Your task to perform on an android device: Open sound settings Image 0: 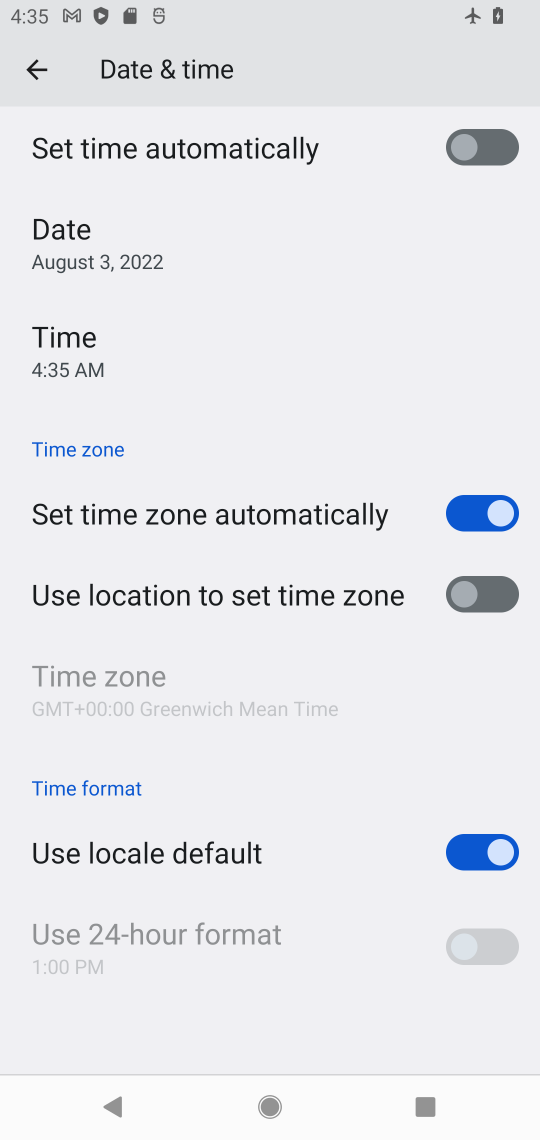
Step 0: press home button
Your task to perform on an android device: Open sound settings Image 1: 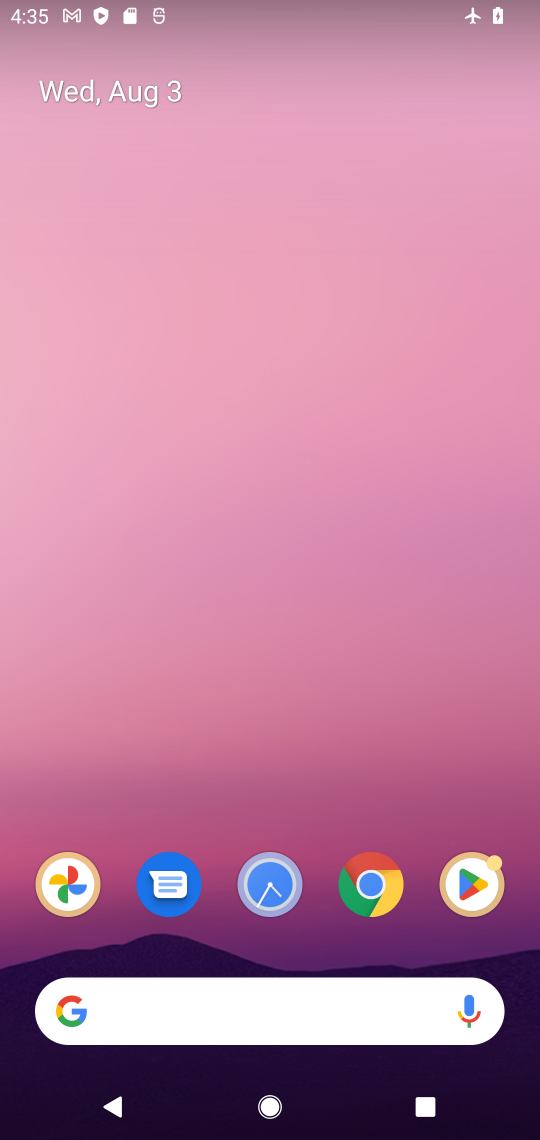
Step 1: drag from (302, 969) to (367, 127)
Your task to perform on an android device: Open sound settings Image 2: 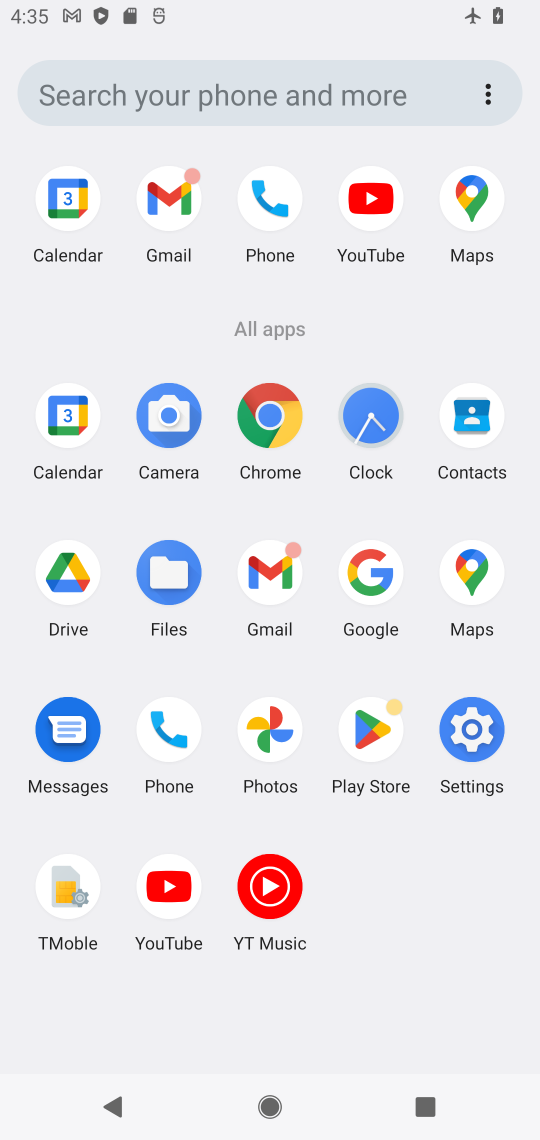
Step 2: click (474, 747)
Your task to perform on an android device: Open sound settings Image 3: 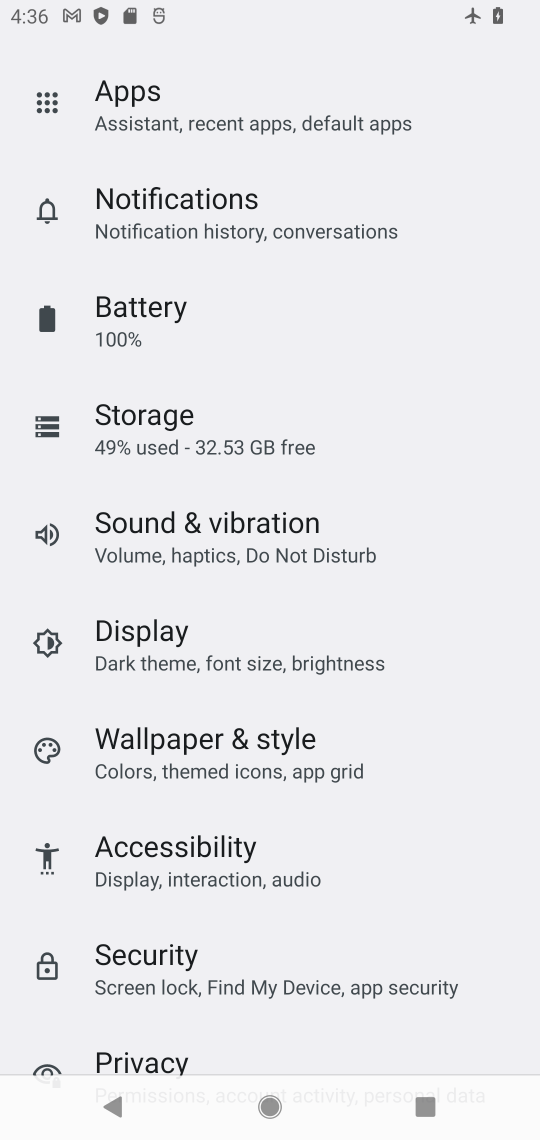
Step 3: drag from (201, 951) to (355, 203)
Your task to perform on an android device: Open sound settings Image 4: 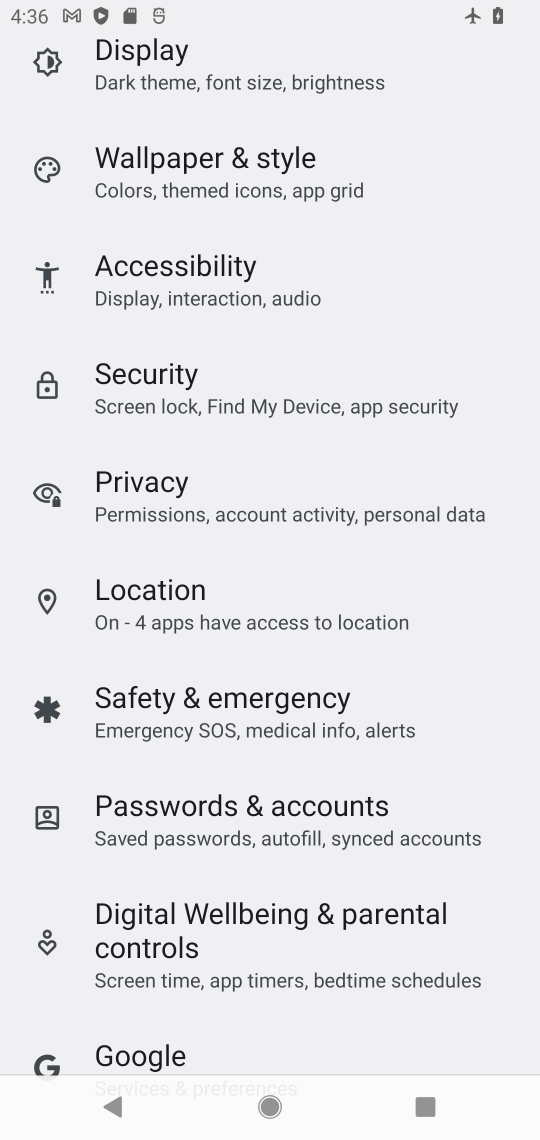
Step 4: drag from (239, 983) to (333, 106)
Your task to perform on an android device: Open sound settings Image 5: 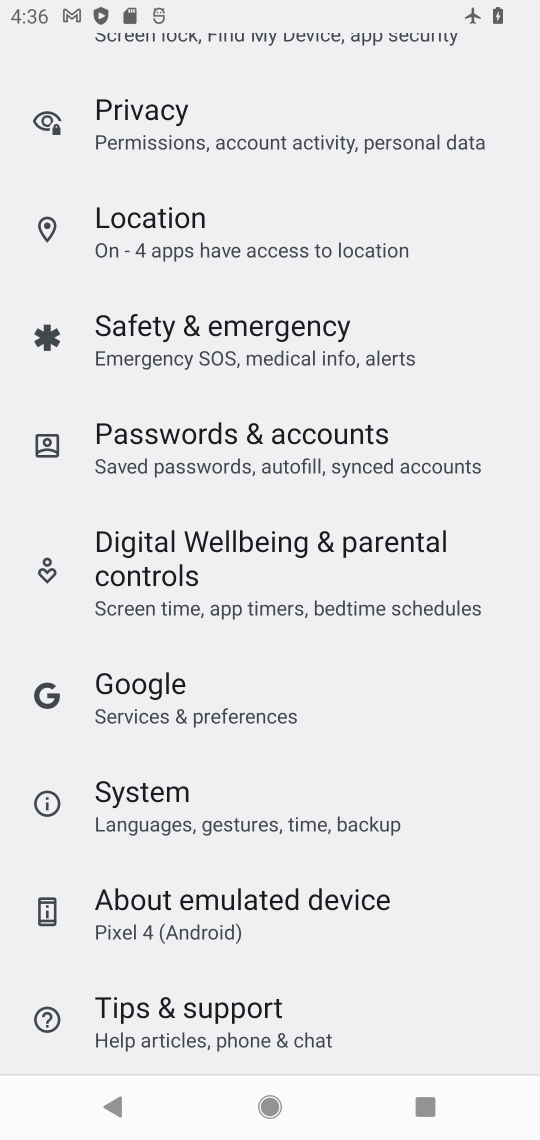
Step 5: drag from (251, 999) to (264, 341)
Your task to perform on an android device: Open sound settings Image 6: 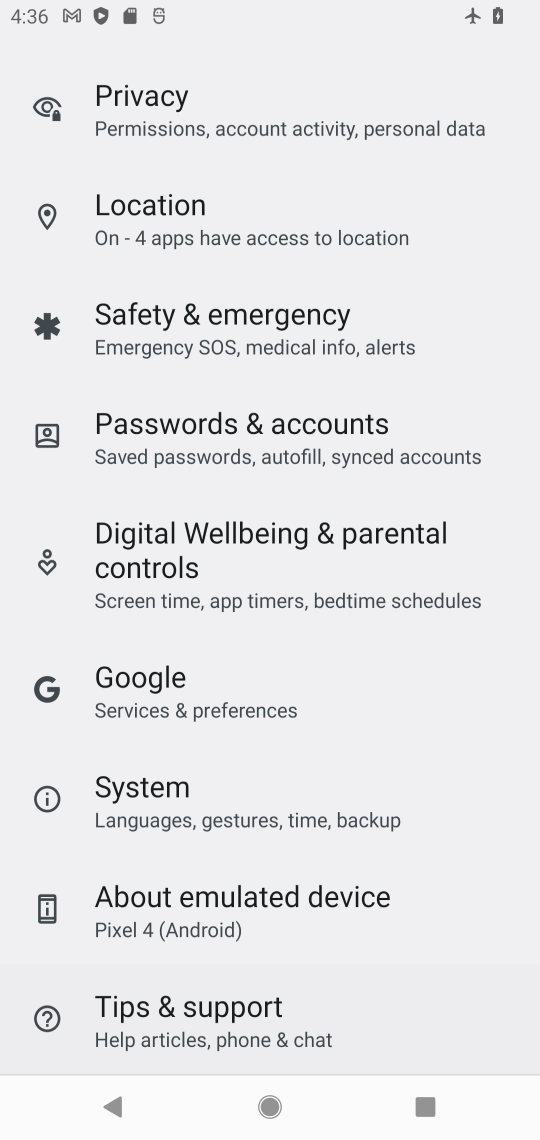
Step 6: drag from (281, 503) to (293, 1000)
Your task to perform on an android device: Open sound settings Image 7: 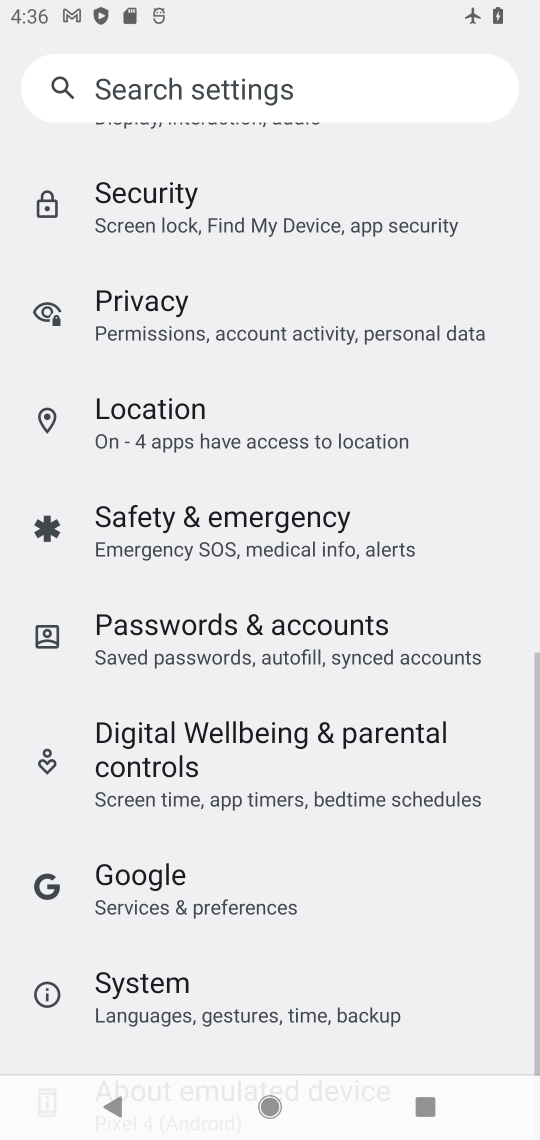
Step 7: drag from (230, 330) to (239, 1048)
Your task to perform on an android device: Open sound settings Image 8: 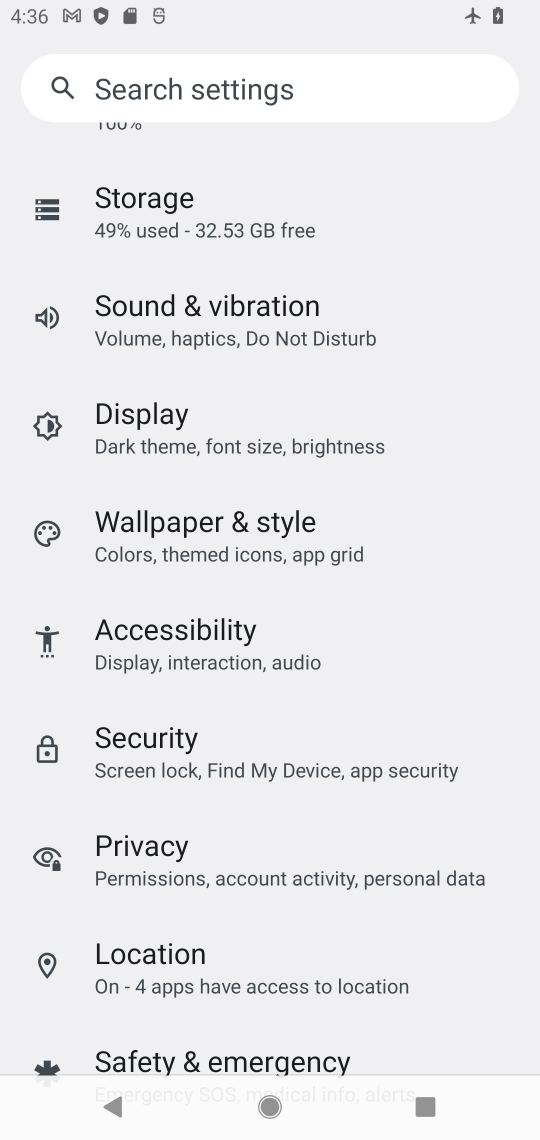
Step 8: click (216, 341)
Your task to perform on an android device: Open sound settings Image 9: 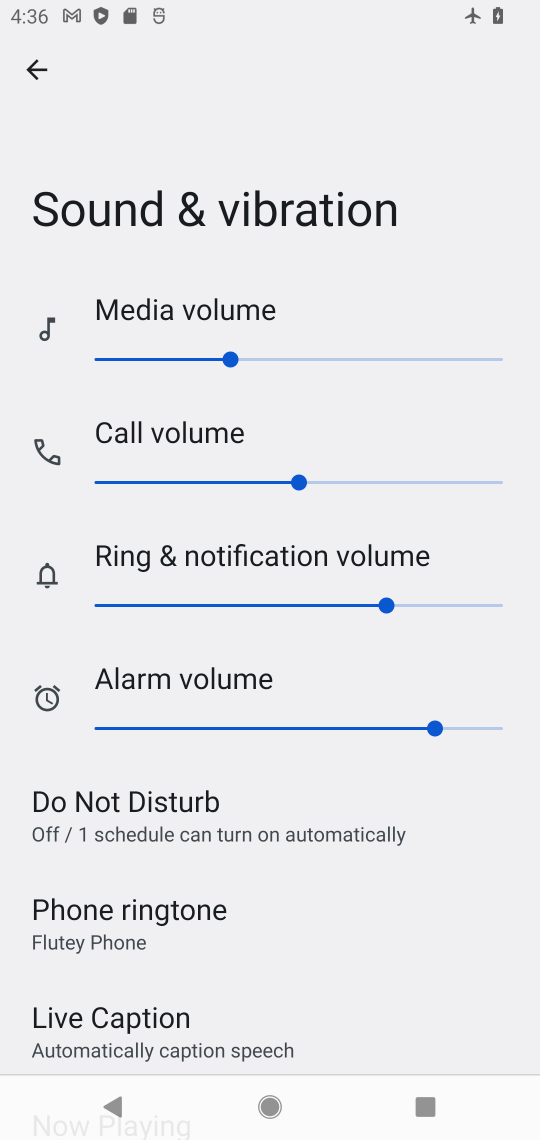
Step 9: task complete